Your task to perform on an android device: allow cookies in the chrome app Image 0: 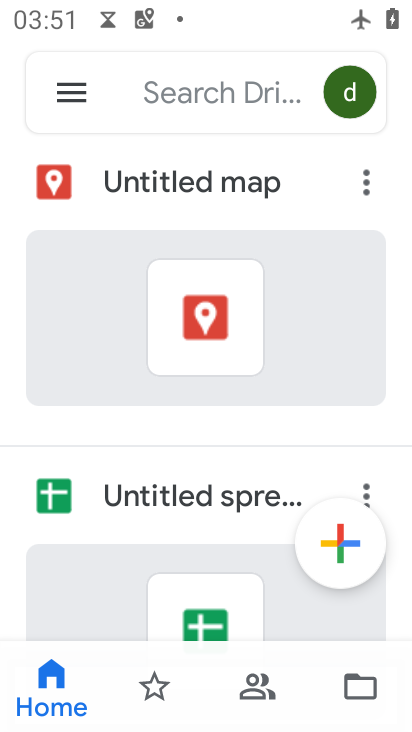
Step 0: press home button
Your task to perform on an android device: allow cookies in the chrome app Image 1: 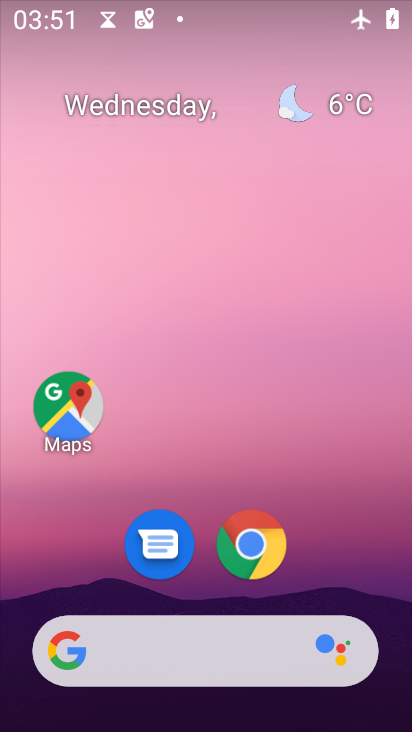
Step 1: click (252, 549)
Your task to perform on an android device: allow cookies in the chrome app Image 2: 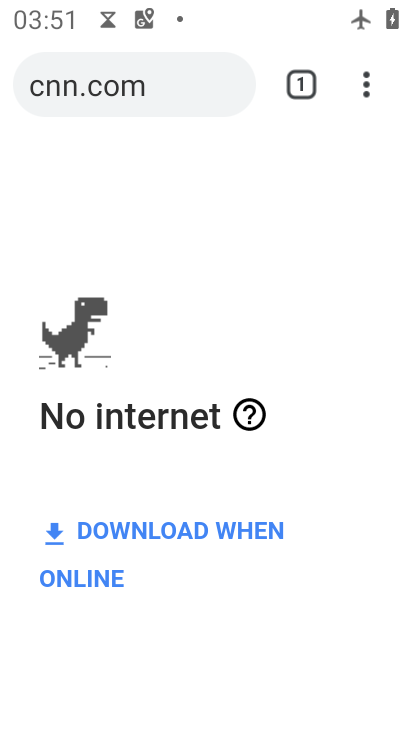
Step 2: click (366, 88)
Your task to perform on an android device: allow cookies in the chrome app Image 3: 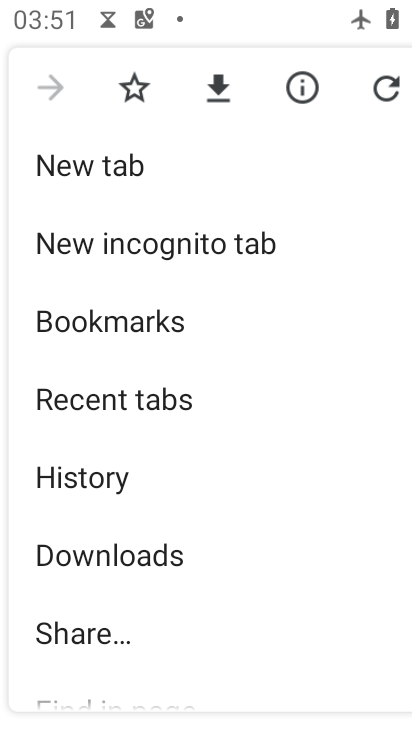
Step 3: drag from (198, 612) to (179, 345)
Your task to perform on an android device: allow cookies in the chrome app Image 4: 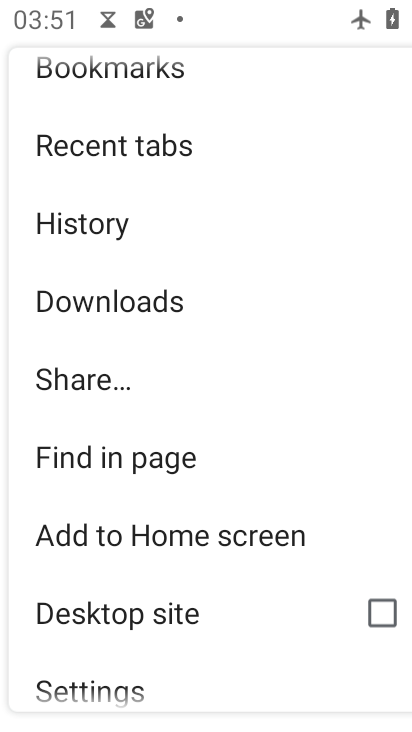
Step 4: drag from (142, 650) to (151, 397)
Your task to perform on an android device: allow cookies in the chrome app Image 5: 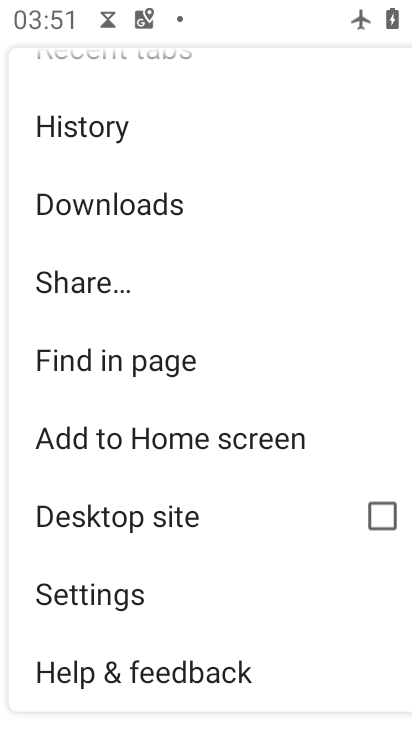
Step 5: click (137, 580)
Your task to perform on an android device: allow cookies in the chrome app Image 6: 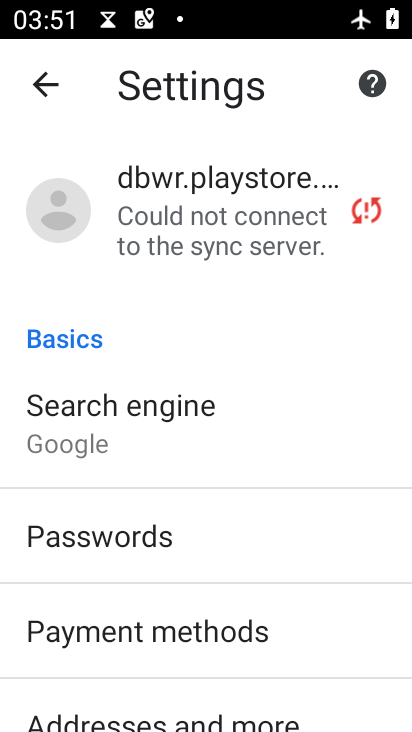
Step 6: drag from (197, 664) to (230, 286)
Your task to perform on an android device: allow cookies in the chrome app Image 7: 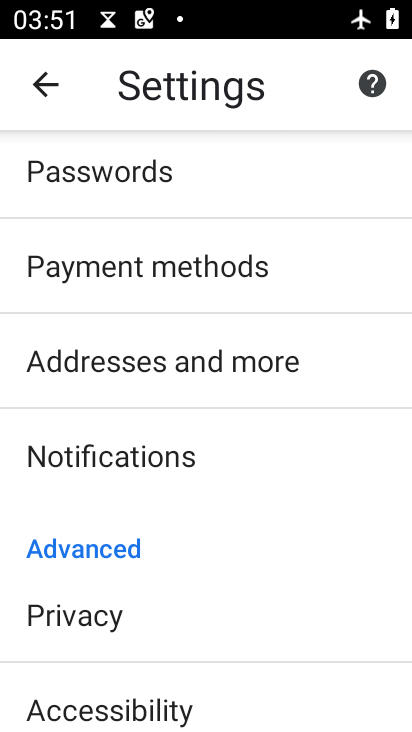
Step 7: drag from (166, 628) to (203, 320)
Your task to perform on an android device: allow cookies in the chrome app Image 8: 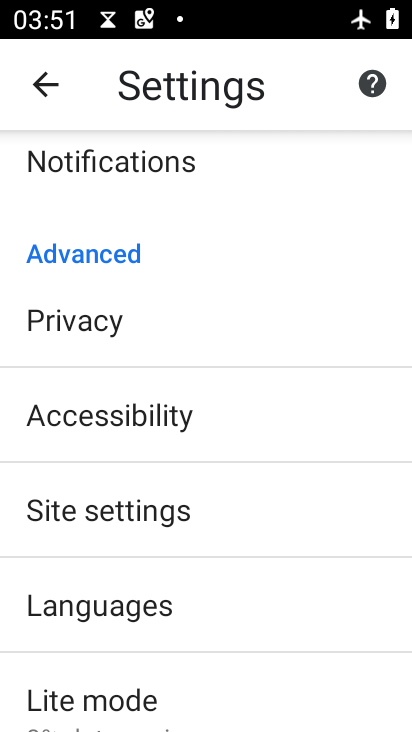
Step 8: click (171, 510)
Your task to perform on an android device: allow cookies in the chrome app Image 9: 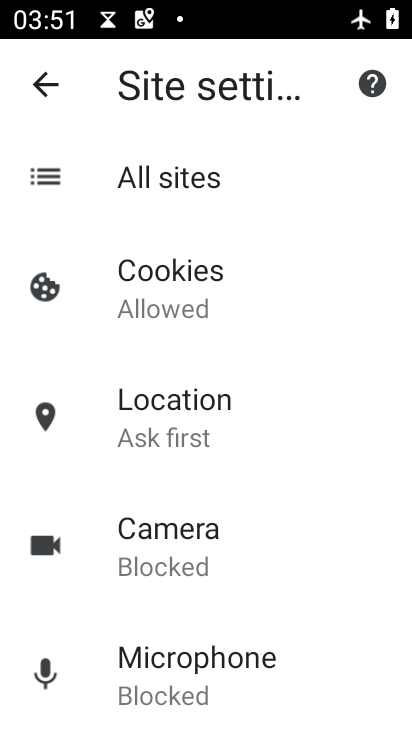
Step 9: click (244, 290)
Your task to perform on an android device: allow cookies in the chrome app Image 10: 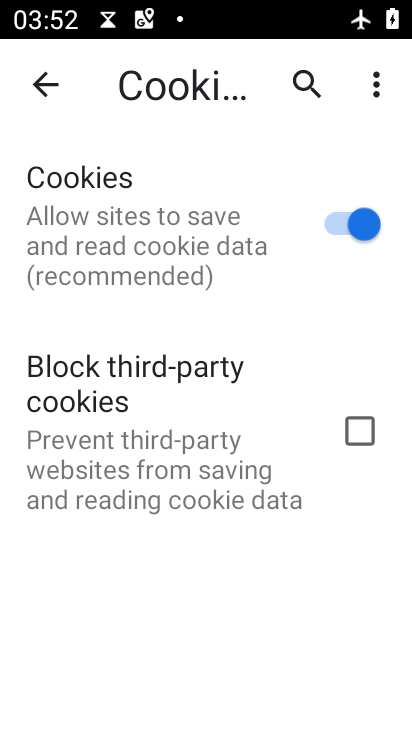
Step 10: task complete